Your task to perform on an android device: Open Wikipedia Image 0: 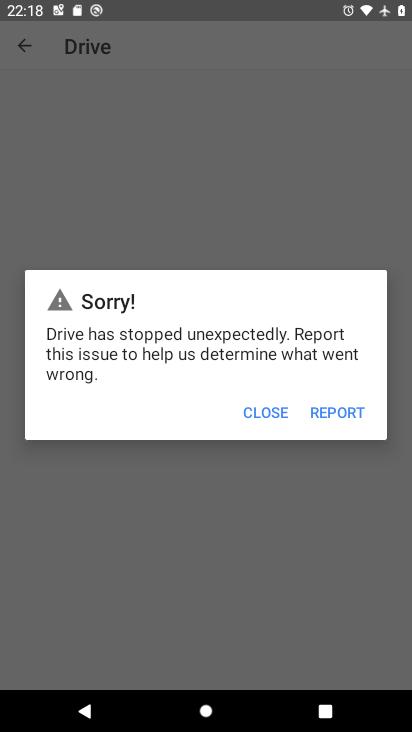
Step 0: press home button
Your task to perform on an android device: Open Wikipedia Image 1: 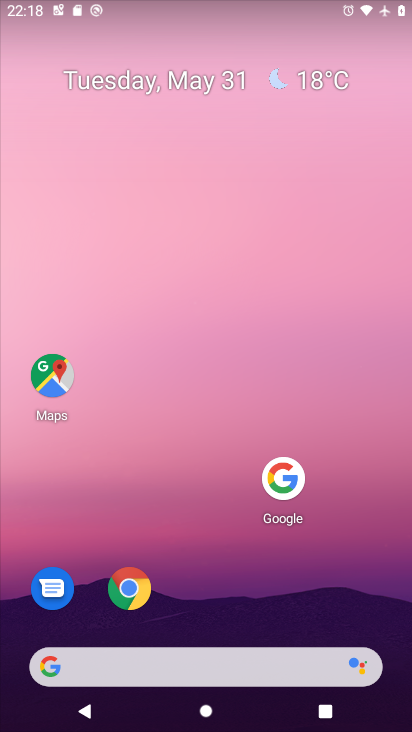
Step 1: click (134, 595)
Your task to perform on an android device: Open Wikipedia Image 2: 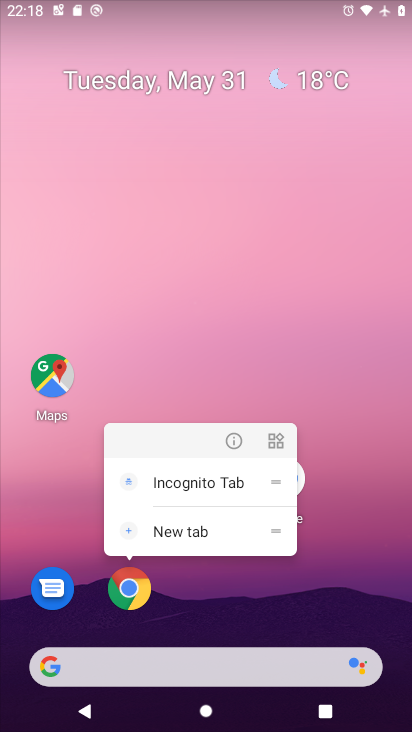
Step 2: click (131, 590)
Your task to perform on an android device: Open Wikipedia Image 3: 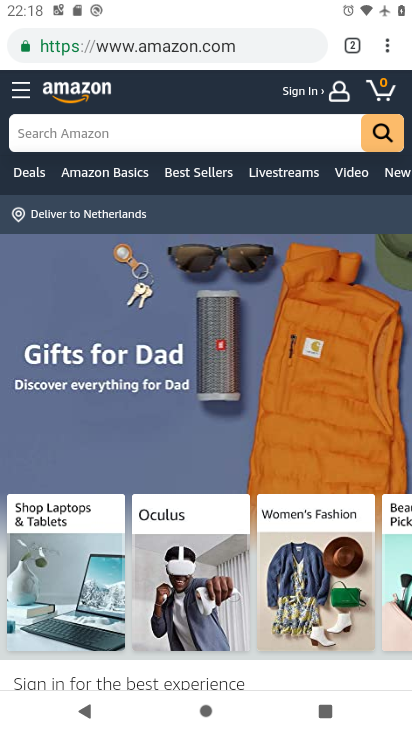
Step 3: drag from (388, 44) to (276, 90)
Your task to perform on an android device: Open Wikipedia Image 4: 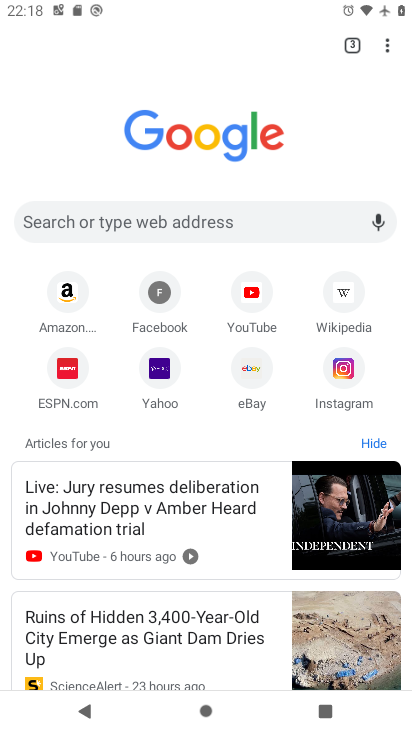
Step 4: click (337, 292)
Your task to perform on an android device: Open Wikipedia Image 5: 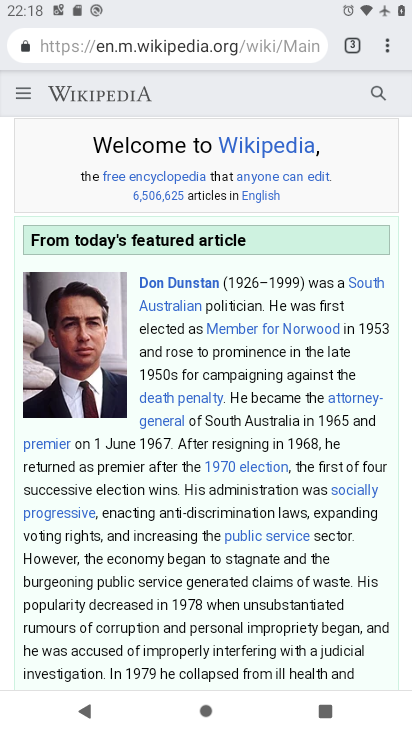
Step 5: task complete